Your task to perform on an android device: star an email in the gmail app Image 0: 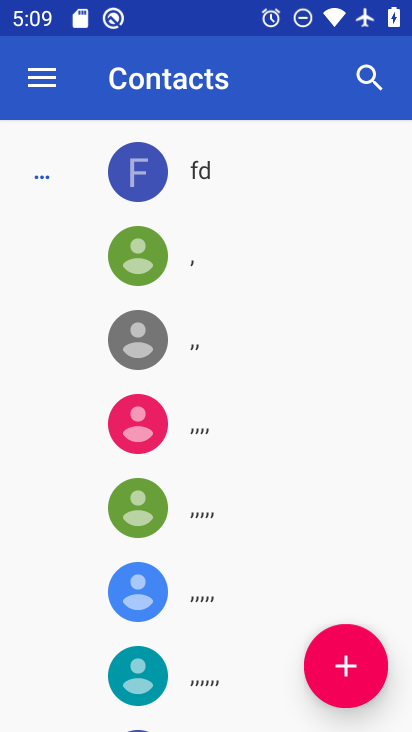
Step 0: press home button
Your task to perform on an android device: star an email in the gmail app Image 1: 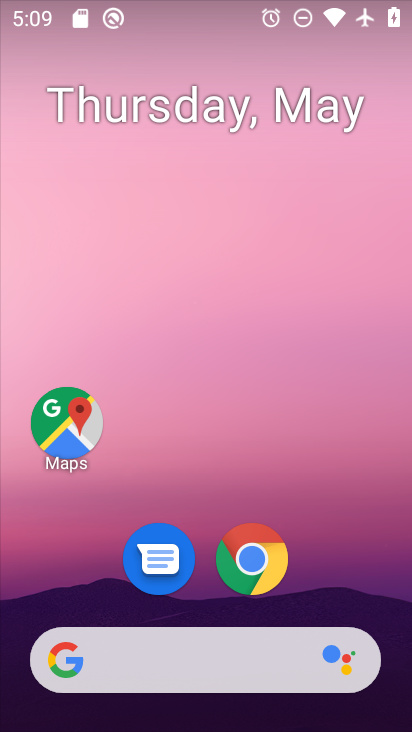
Step 1: drag from (350, 556) to (207, 6)
Your task to perform on an android device: star an email in the gmail app Image 2: 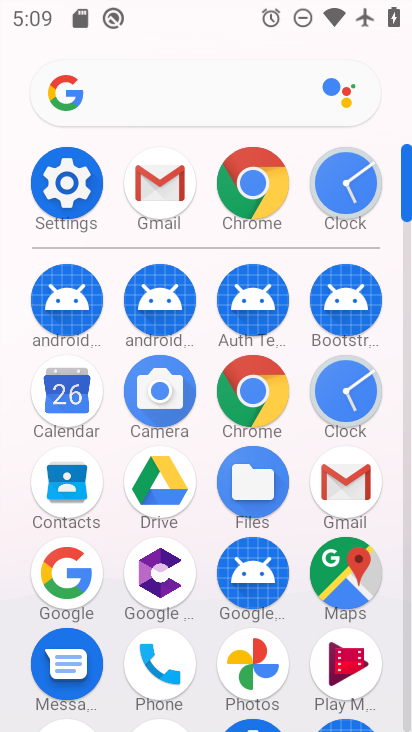
Step 2: click (360, 487)
Your task to perform on an android device: star an email in the gmail app Image 3: 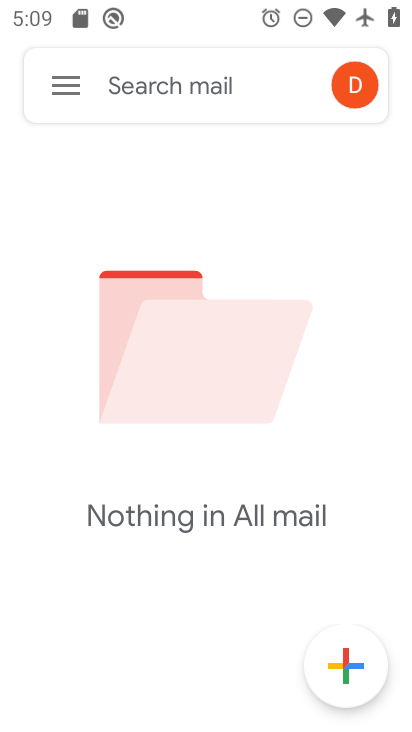
Step 3: click (85, 95)
Your task to perform on an android device: star an email in the gmail app Image 4: 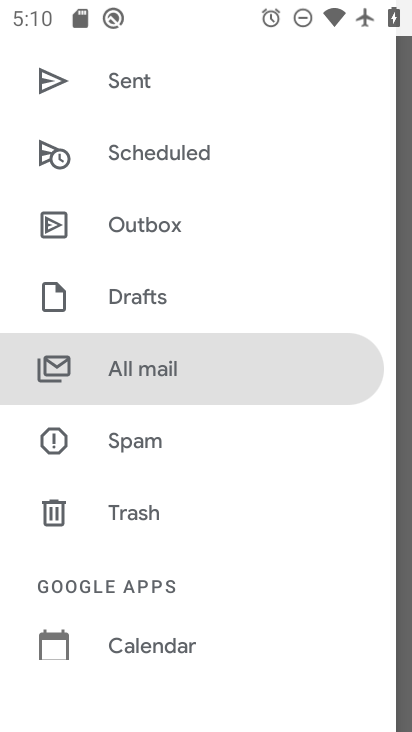
Step 4: click (180, 354)
Your task to perform on an android device: star an email in the gmail app Image 5: 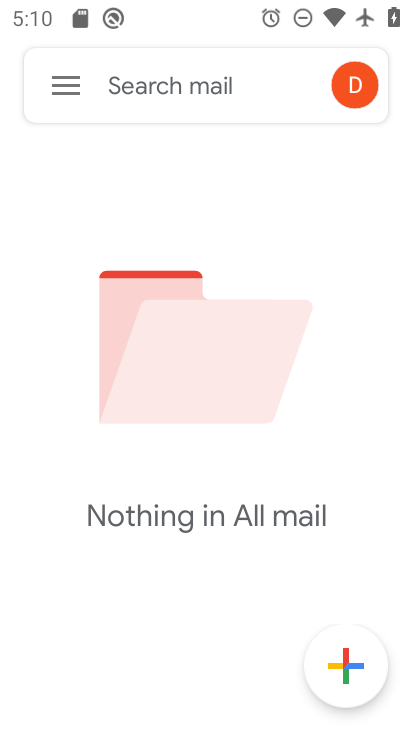
Step 5: task complete